Your task to perform on an android device: Clear the shopping cart on walmart.com. Image 0: 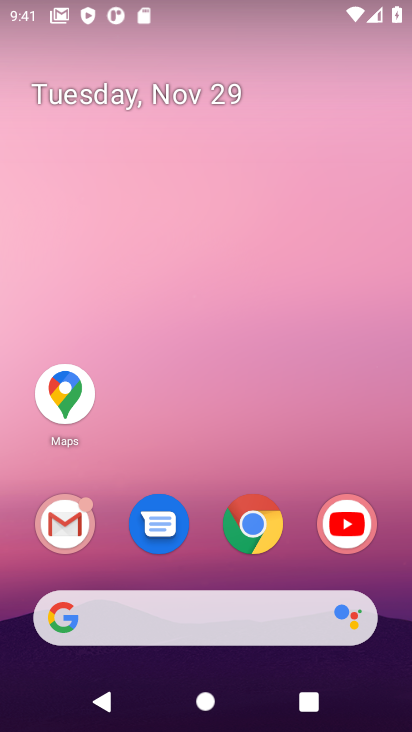
Step 0: click (256, 535)
Your task to perform on an android device: Clear the shopping cart on walmart.com. Image 1: 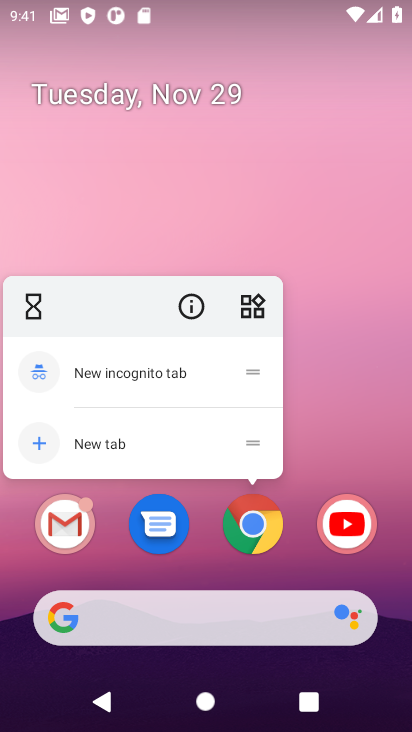
Step 1: click (257, 535)
Your task to perform on an android device: Clear the shopping cart on walmart.com. Image 2: 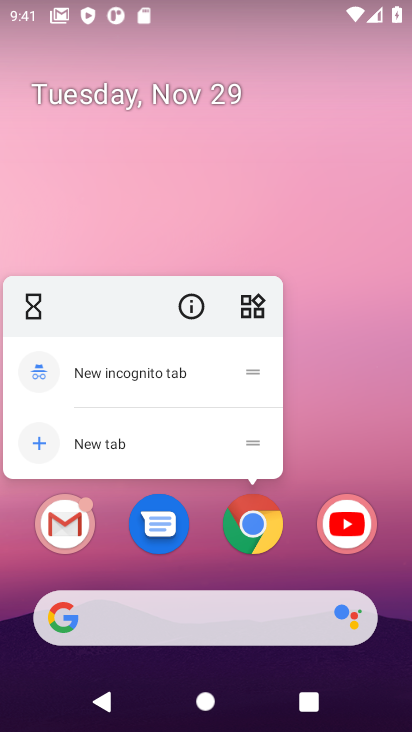
Step 2: click (255, 530)
Your task to perform on an android device: Clear the shopping cart on walmart.com. Image 3: 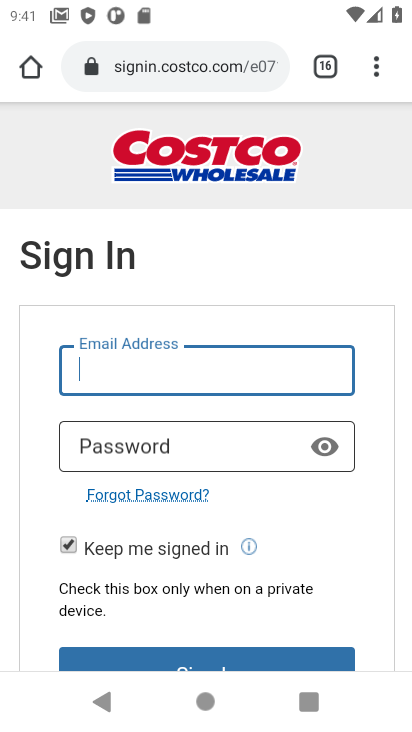
Step 3: click (191, 64)
Your task to perform on an android device: Clear the shopping cart on walmart.com. Image 4: 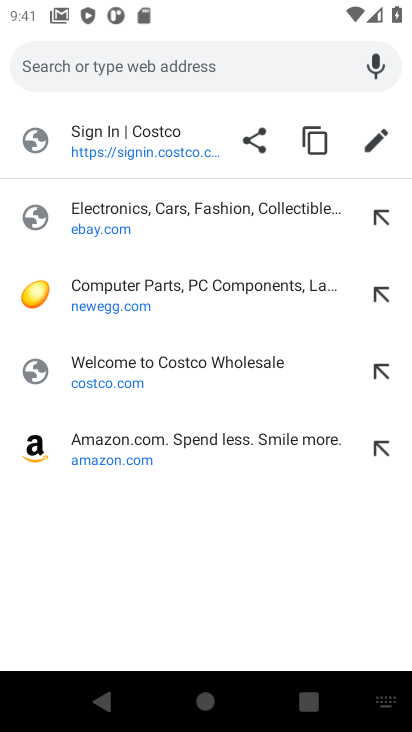
Step 4: type "walmart.com"
Your task to perform on an android device: Clear the shopping cart on walmart.com. Image 5: 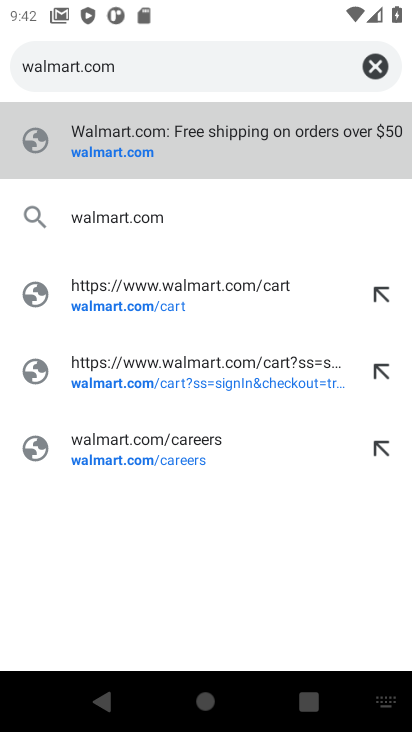
Step 5: click (96, 158)
Your task to perform on an android device: Clear the shopping cart on walmart.com. Image 6: 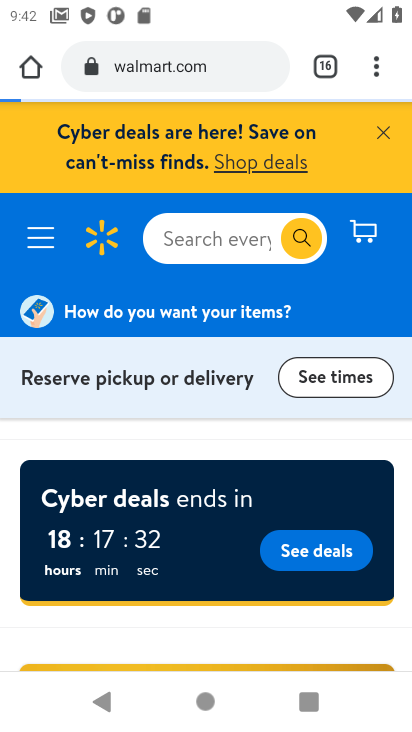
Step 6: click (361, 228)
Your task to perform on an android device: Clear the shopping cart on walmart.com. Image 7: 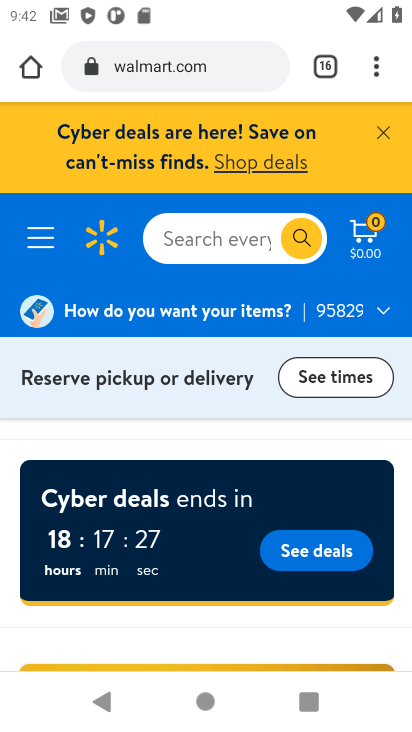
Step 7: click (361, 228)
Your task to perform on an android device: Clear the shopping cart on walmart.com. Image 8: 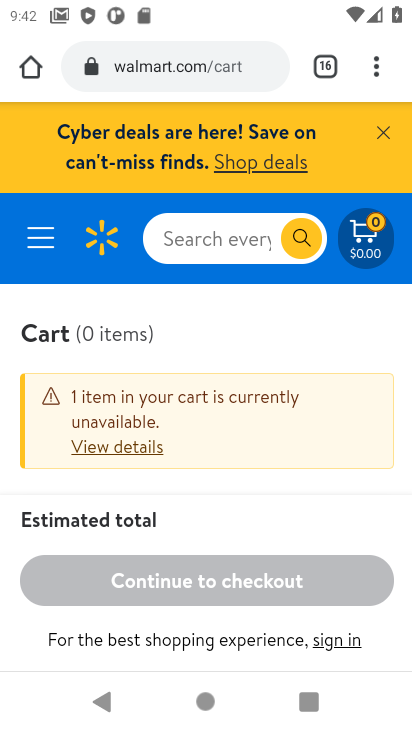
Step 8: drag from (274, 418) to (257, 187)
Your task to perform on an android device: Clear the shopping cart on walmart.com. Image 9: 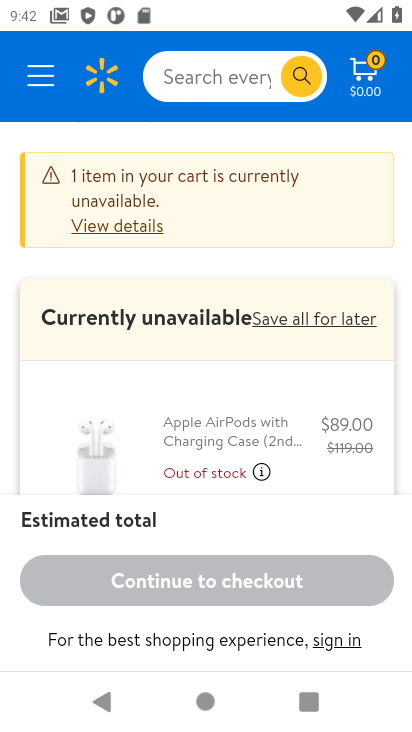
Step 9: drag from (234, 358) to (212, 158)
Your task to perform on an android device: Clear the shopping cart on walmart.com. Image 10: 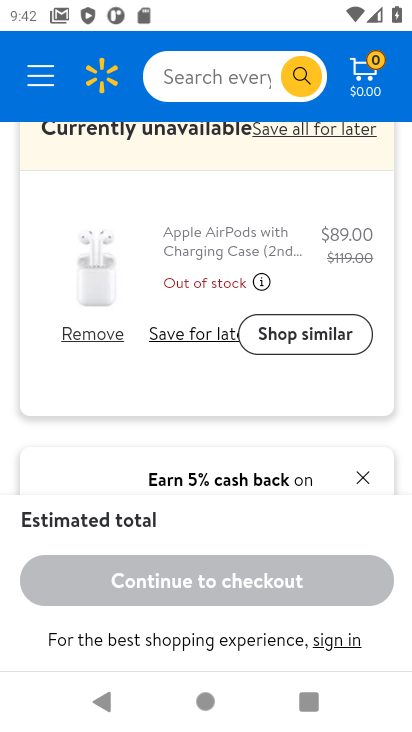
Step 10: click (87, 336)
Your task to perform on an android device: Clear the shopping cart on walmart.com. Image 11: 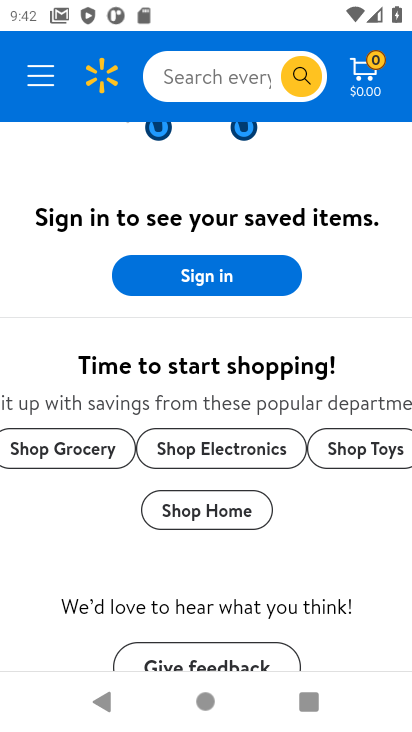
Step 11: task complete